Your task to perform on an android device: toggle sleep mode Image 0: 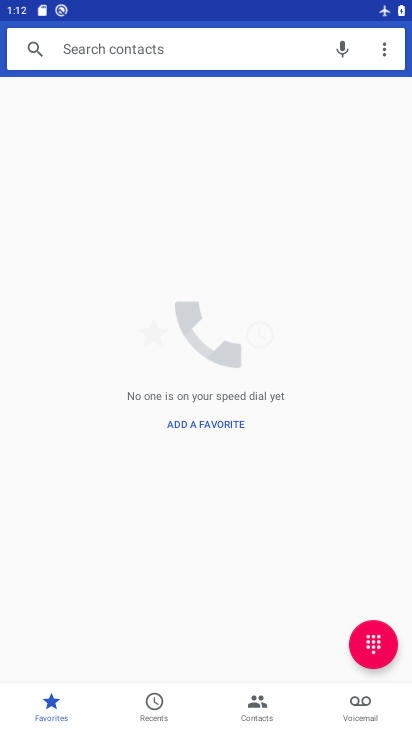
Step 0: press home button
Your task to perform on an android device: toggle sleep mode Image 1: 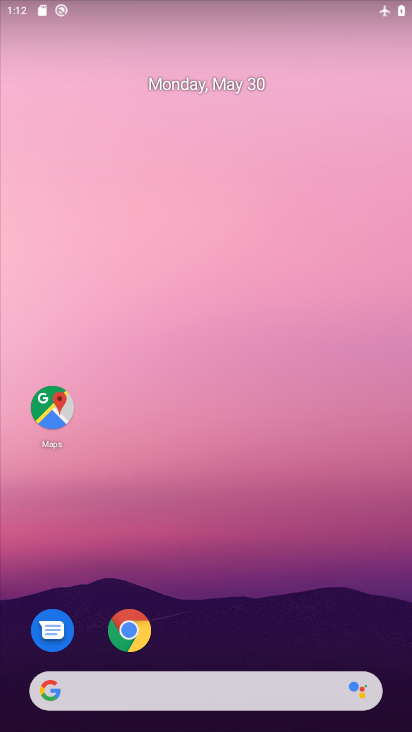
Step 1: drag from (151, 694) to (306, 108)
Your task to perform on an android device: toggle sleep mode Image 2: 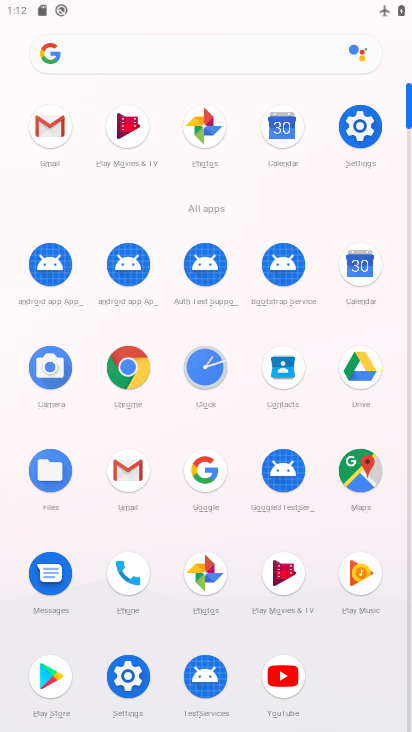
Step 2: click (357, 126)
Your task to perform on an android device: toggle sleep mode Image 3: 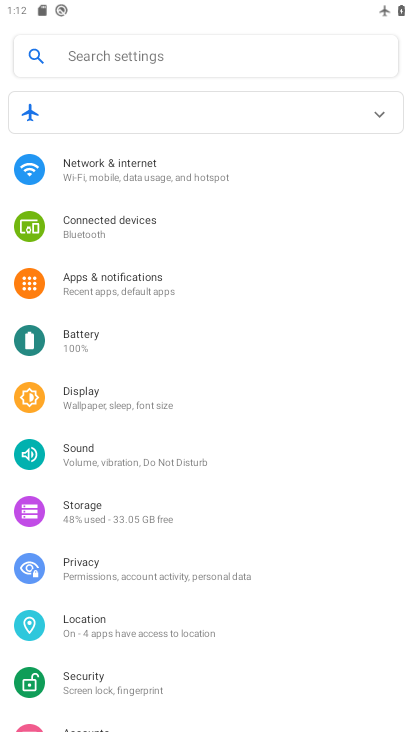
Step 3: click (120, 403)
Your task to perform on an android device: toggle sleep mode Image 4: 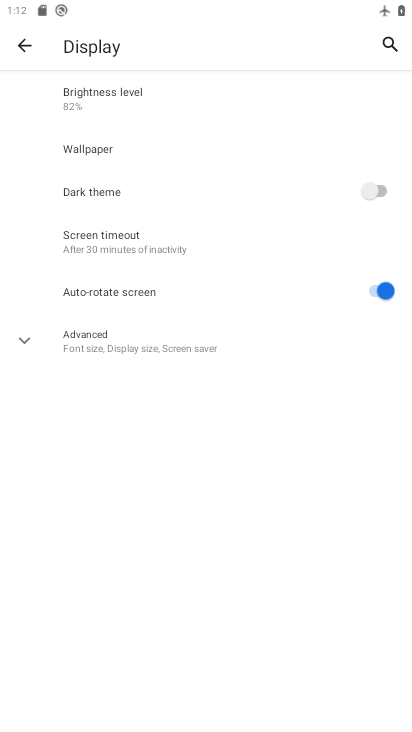
Step 4: task complete